Your task to perform on an android device: Clear the shopping cart on bestbuy. Search for "panasonic triple a" on bestbuy, select the first entry, add it to the cart, then select checkout. Image 0: 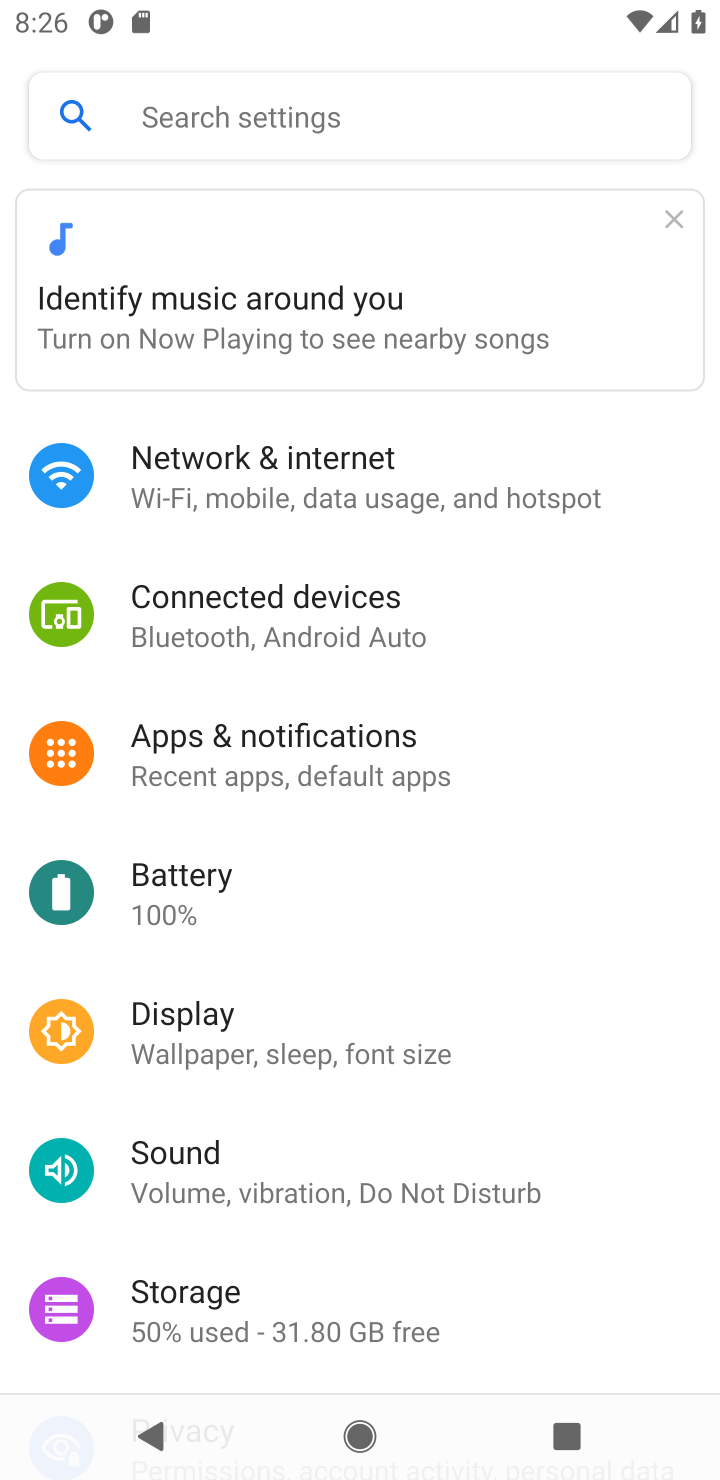
Step 0: press home button
Your task to perform on an android device: Clear the shopping cart on bestbuy. Search for "panasonic triple a" on bestbuy, select the first entry, add it to the cart, then select checkout. Image 1: 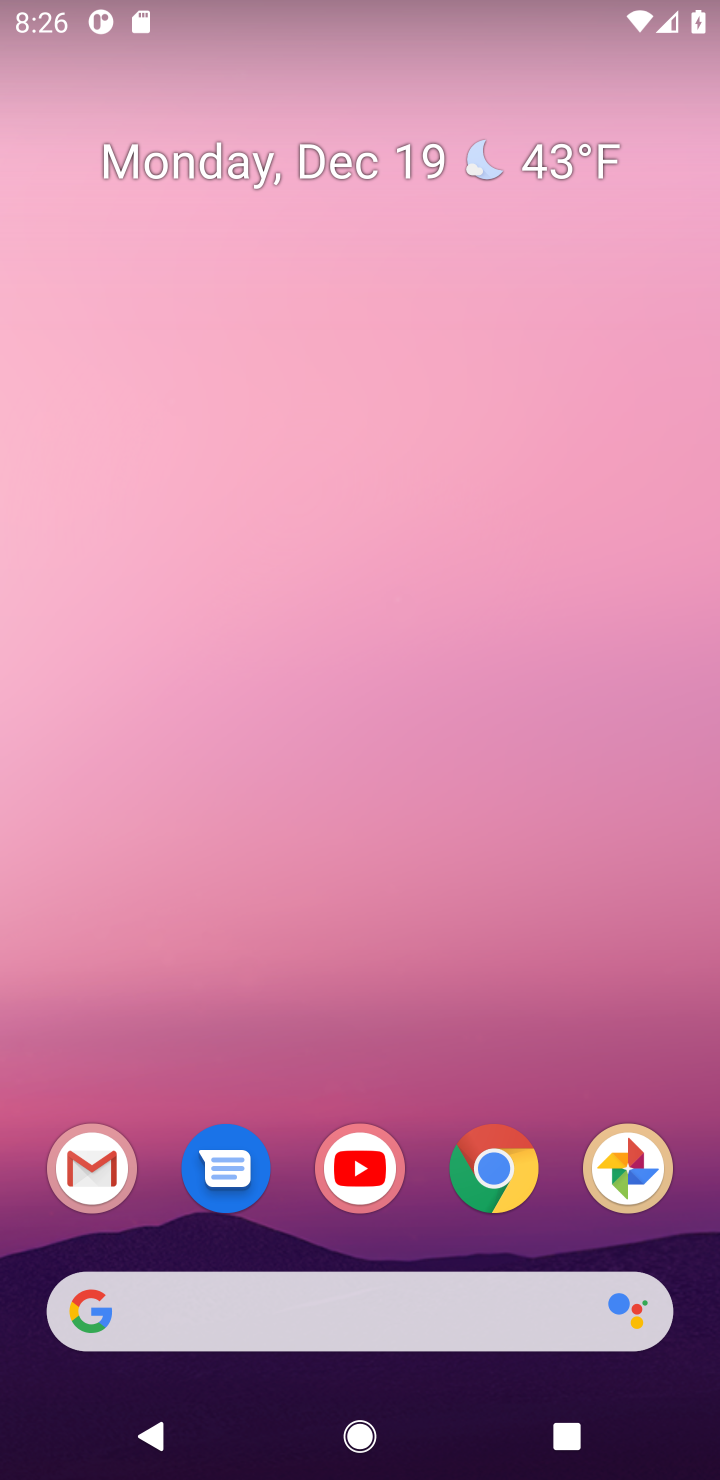
Step 1: click (489, 1188)
Your task to perform on an android device: Clear the shopping cart on bestbuy. Search for "panasonic triple a" on bestbuy, select the first entry, add it to the cart, then select checkout. Image 2: 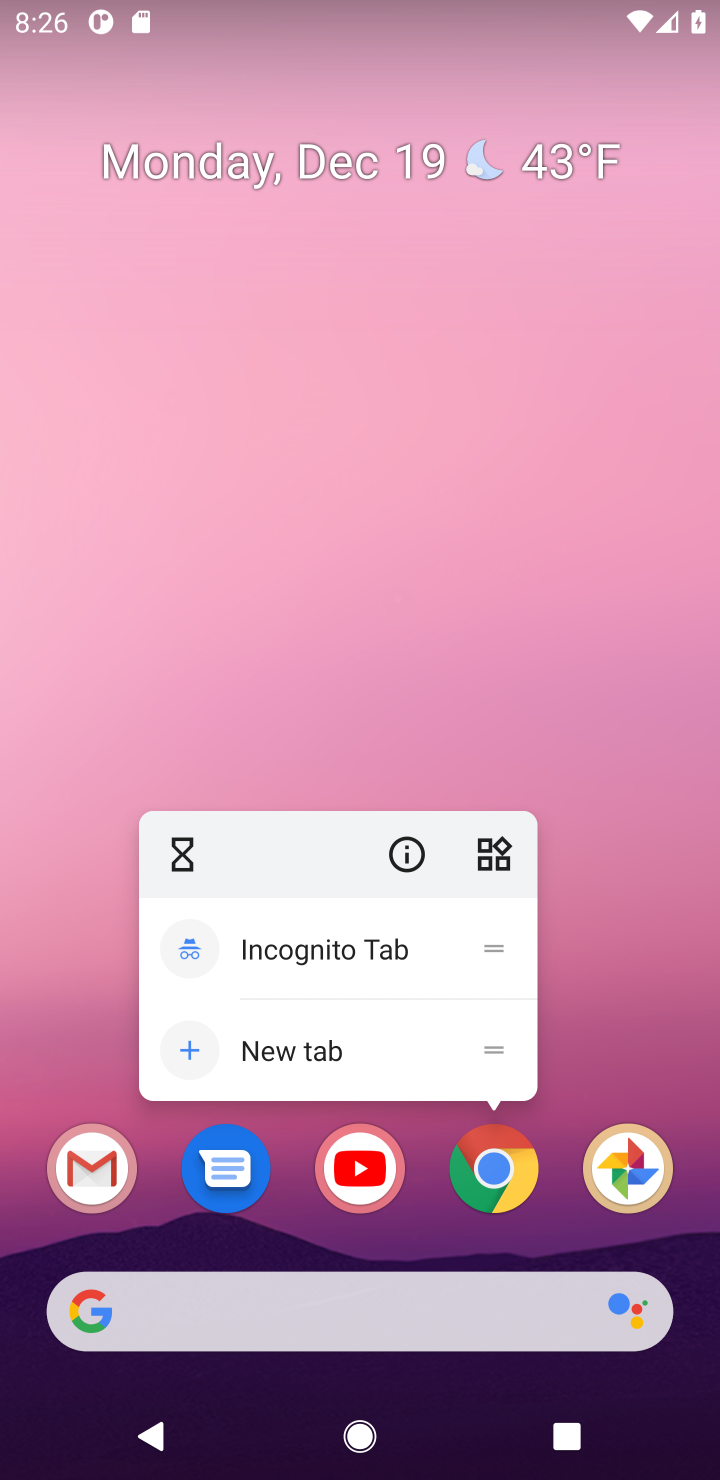
Step 2: click (493, 1186)
Your task to perform on an android device: Clear the shopping cart on bestbuy. Search for "panasonic triple a" on bestbuy, select the first entry, add it to the cart, then select checkout. Image 3: 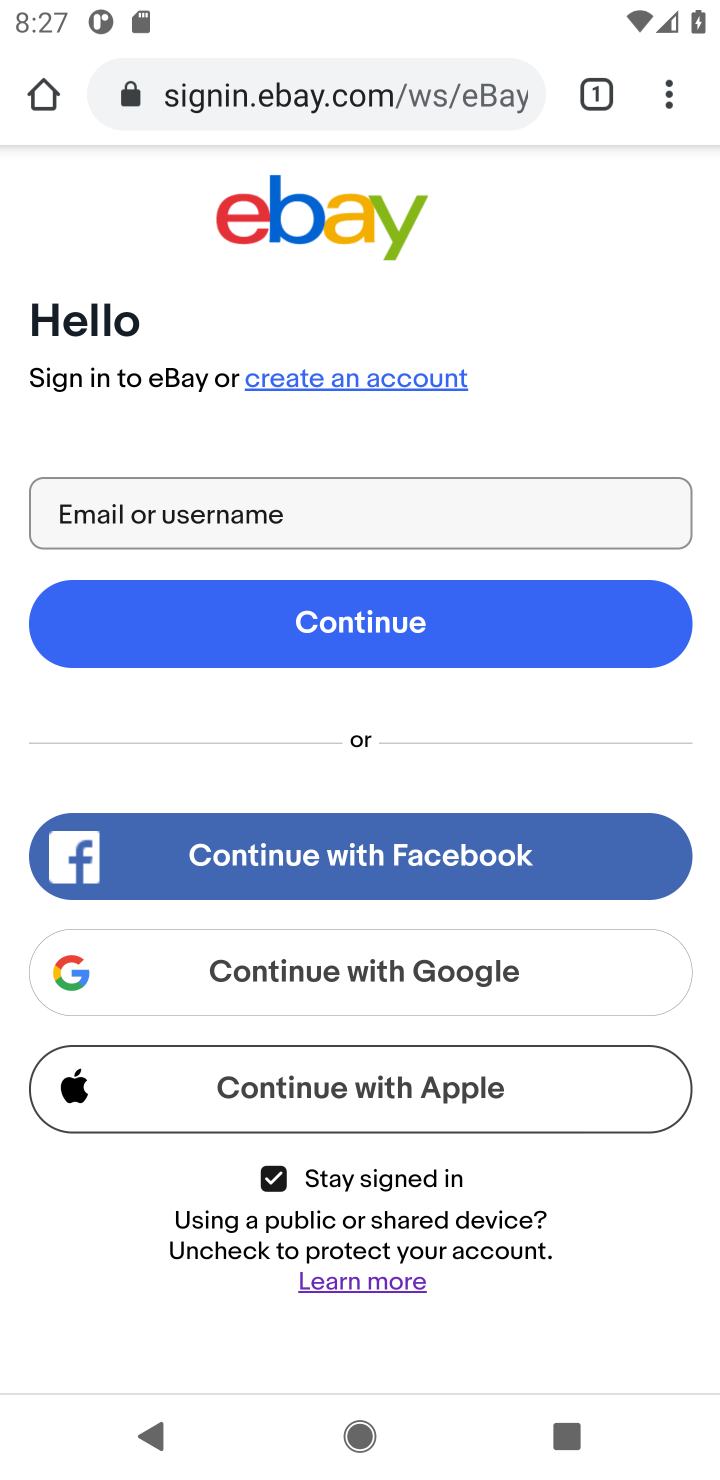
Step 3: click (317, 91)
Your task to perform on an android device: Clear the shopping cart on bestbuy. Search for "panasonic triple a" on bestbuy, select the first entry, add it to the cart, then select checkout. Image 4: 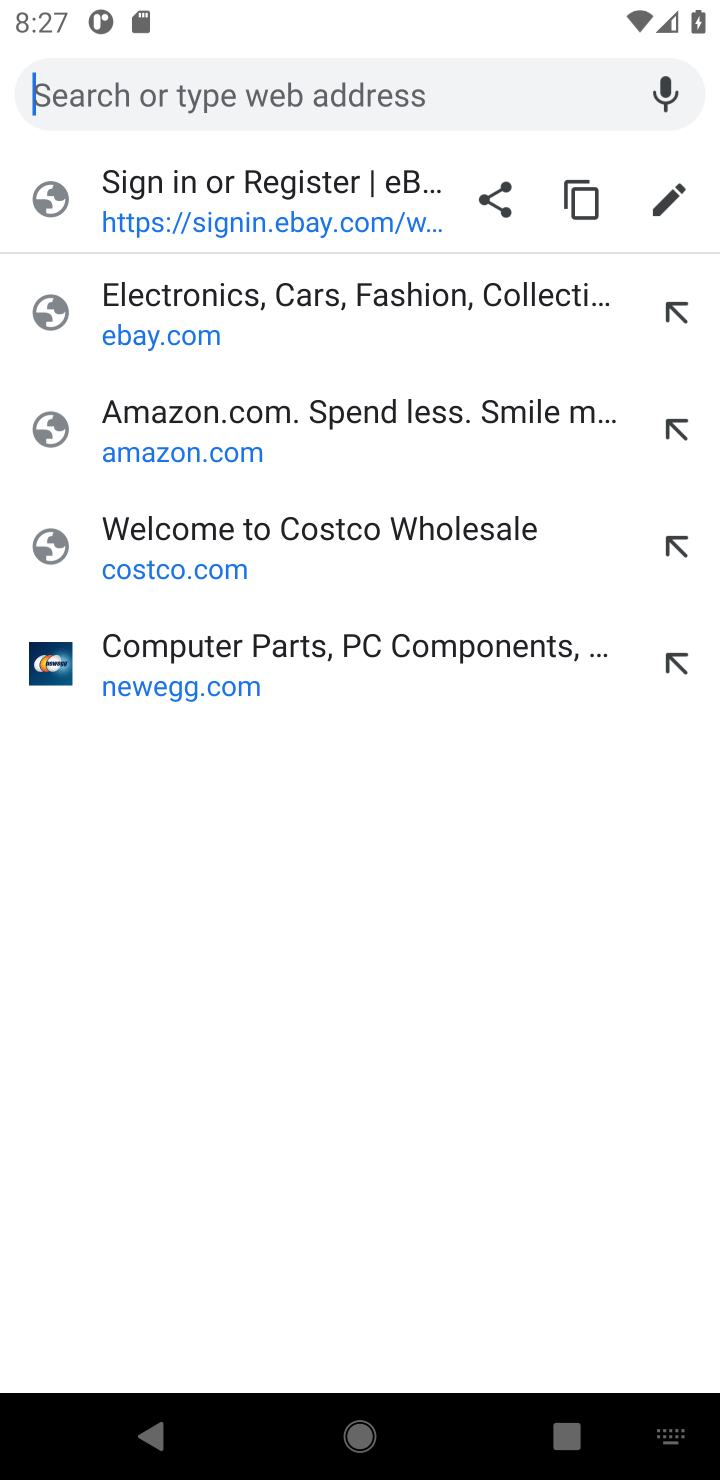
Step 4: type "bestbuy.com"
Your task to perform on an android device: Clear the shopping cart on bestbuy. Search for "panasonic triple a" on bestbuy, select the first entry, add it to the cart, then select checkout. Image 5: 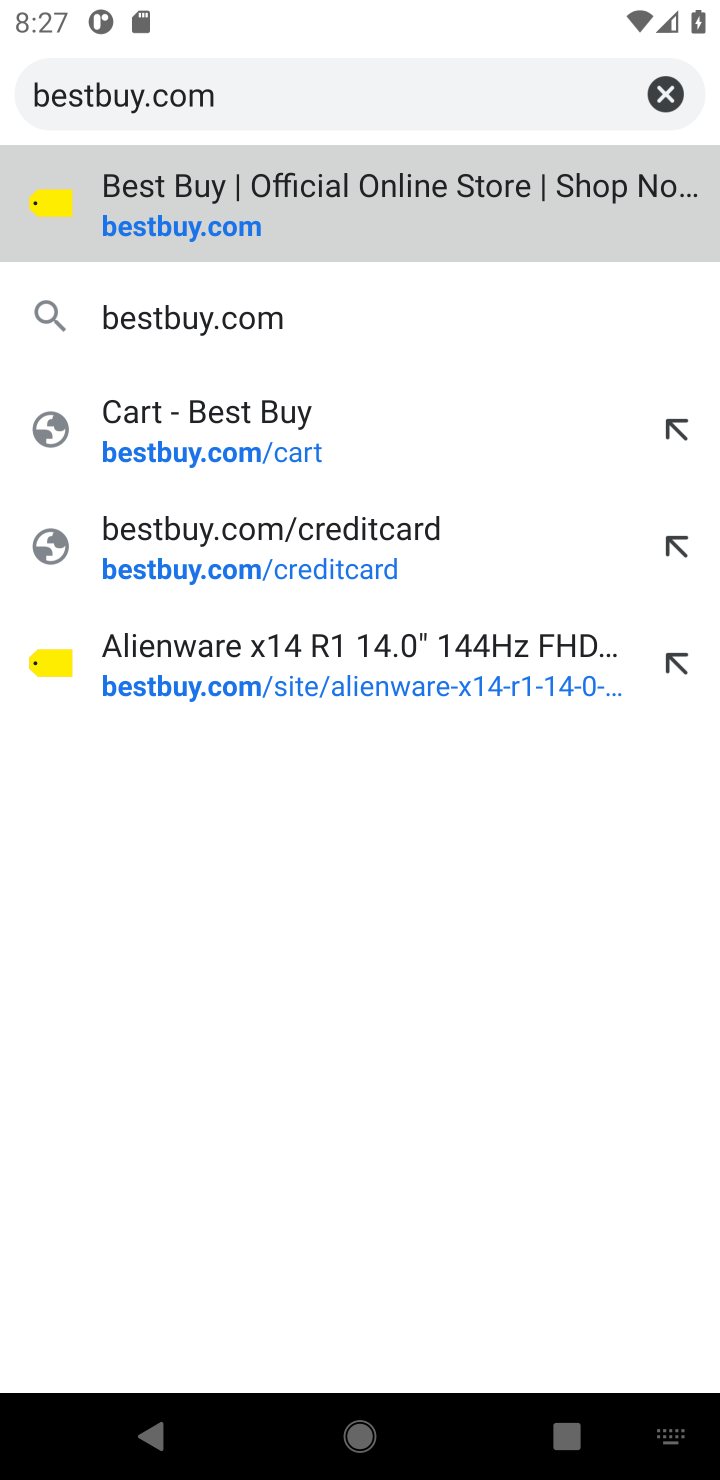
Step 5: click (167, 241)
Your task to perform on an android device: Clear the shopping cart on bestbuy. Search for "panasonic triple a" on bestbuy, select the first entry, add it to the cart, then select checkout. Image 6: 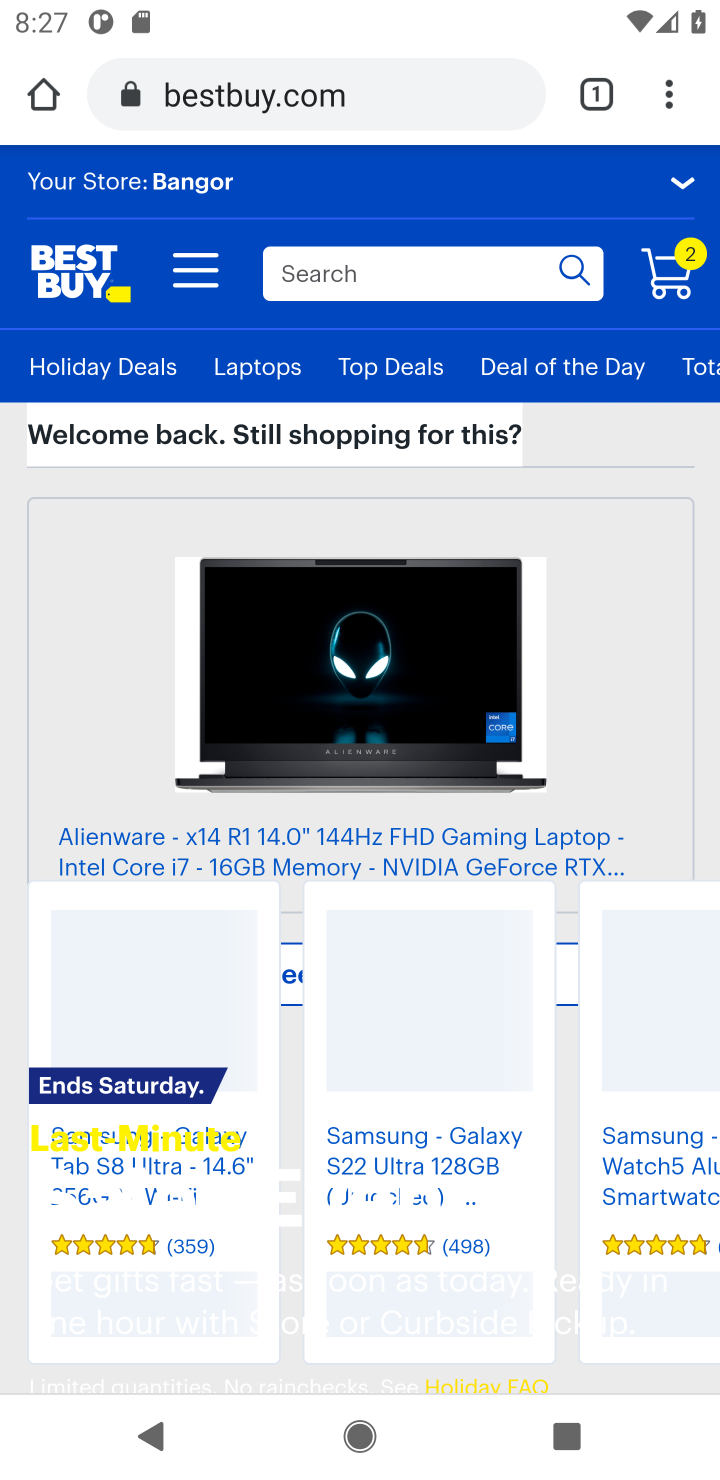
Step 6: click (675, 288)
Your task to perform on an android device: Clear the shopping cart on bestbuy. Search for "panasonic triple a" on bestbuy, select the first entry, add it to the cart, then select checkout. Image 7: 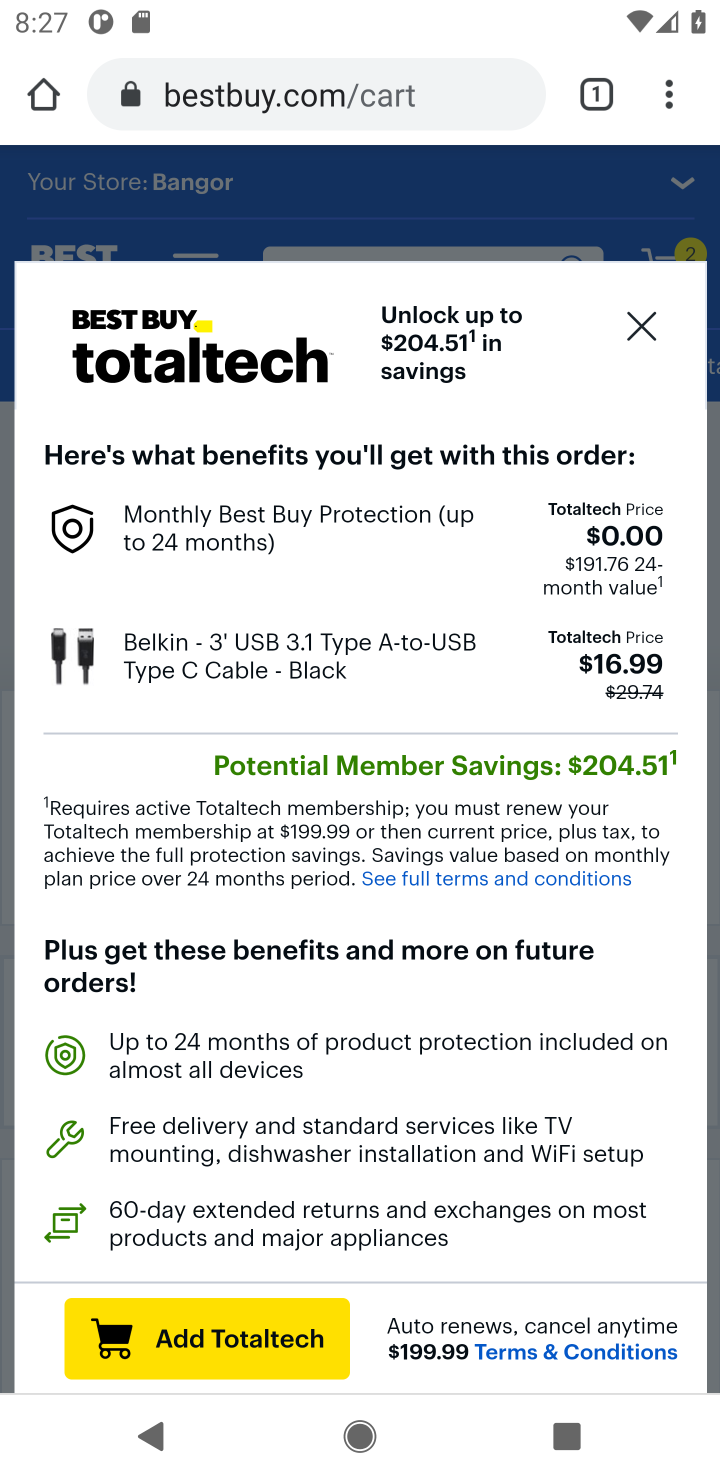
Step 7: click (633, 327)
Your task to perform on an android device: Clear the shopping cart on bestbuy. Search for "panasonic triple a" on bestbuy, select the first entry, add it to the cart, then select checkout. Image 8: 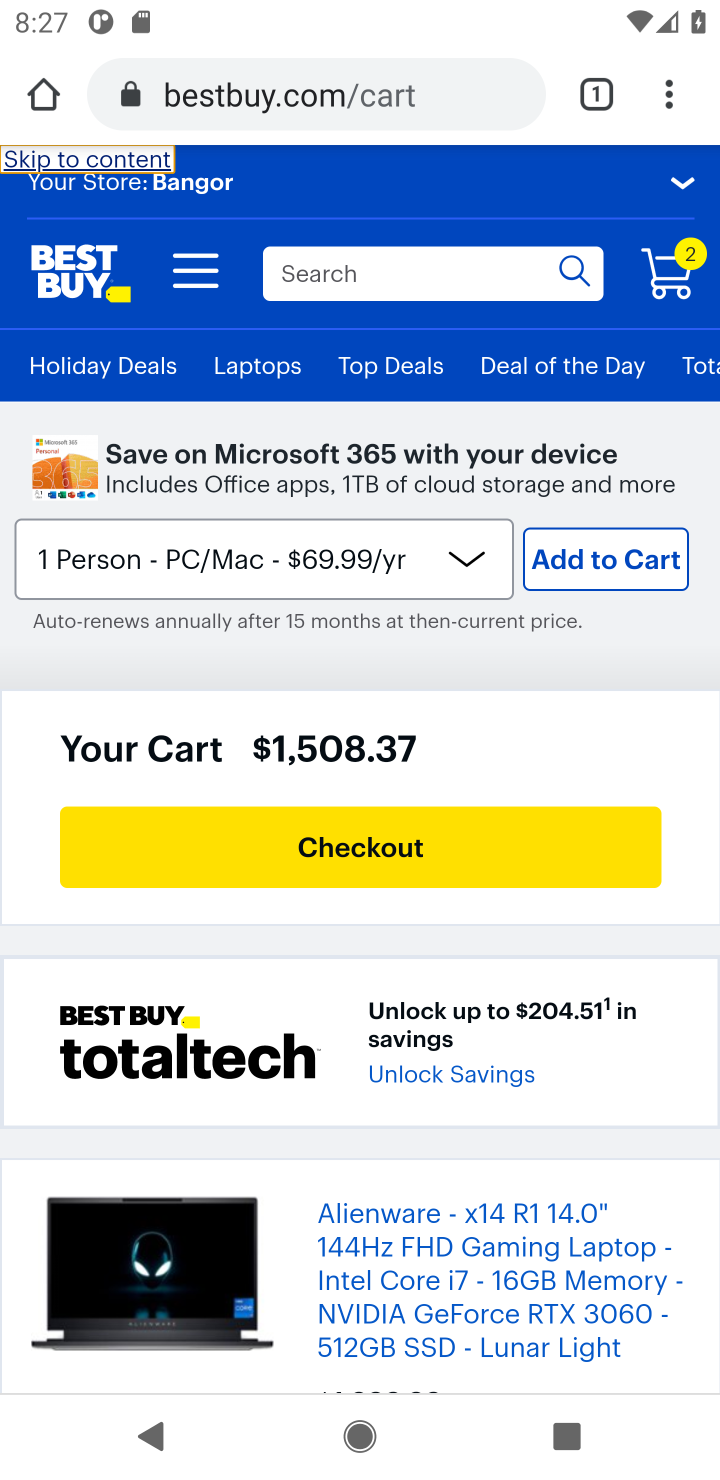
Step 8: drag from (581, 1112) to (490, 449)
Your task to perform on an android device: Clear the shopping cart on bestbuy. Search for "panasonic triple a" on bestbuy, select the first entry, add it to the cart, then select checkout. Image 9: 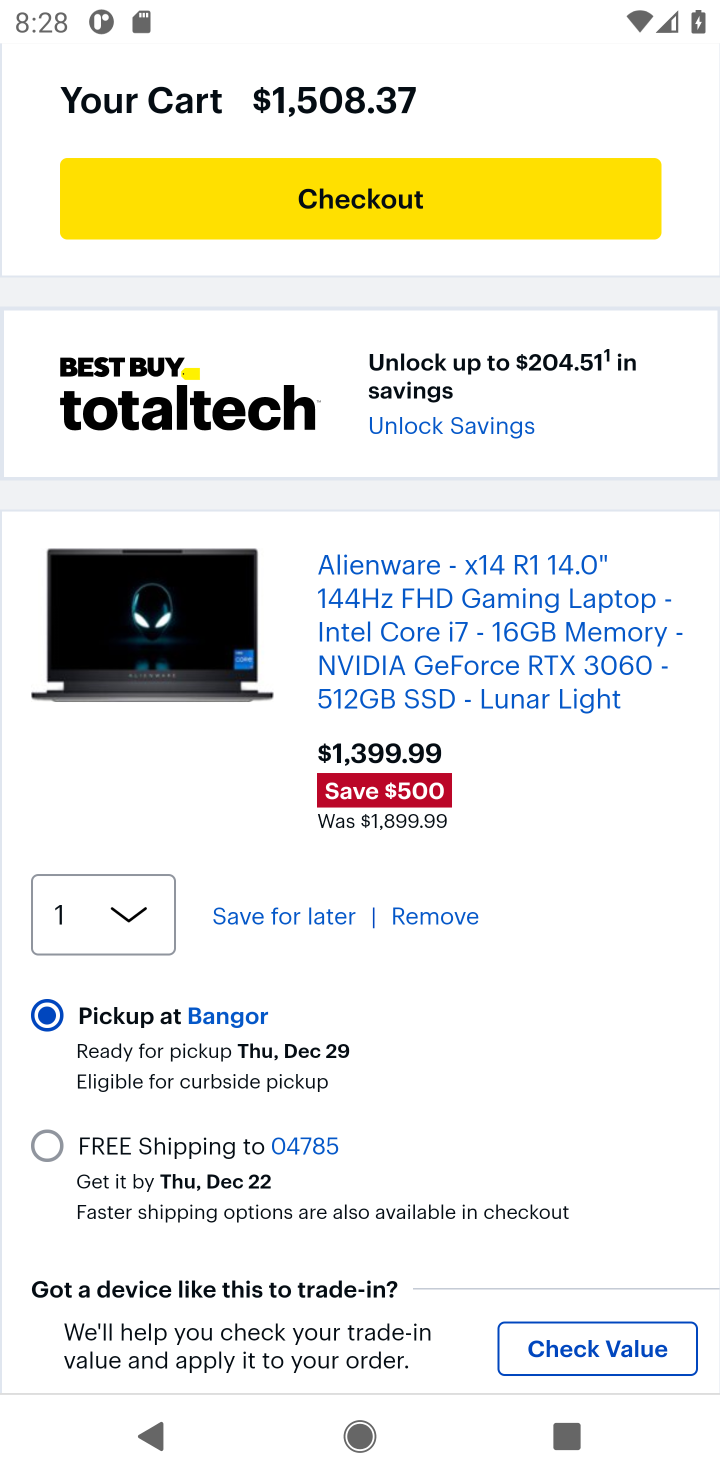
Step 9: click (420, 902)
Your task to perform on an android device: Clear the shopping cart on bestbuy. Search for "panasonic triple a" on bestbuy, select the first entry, add it to the cart, then select checkout. Image 10: 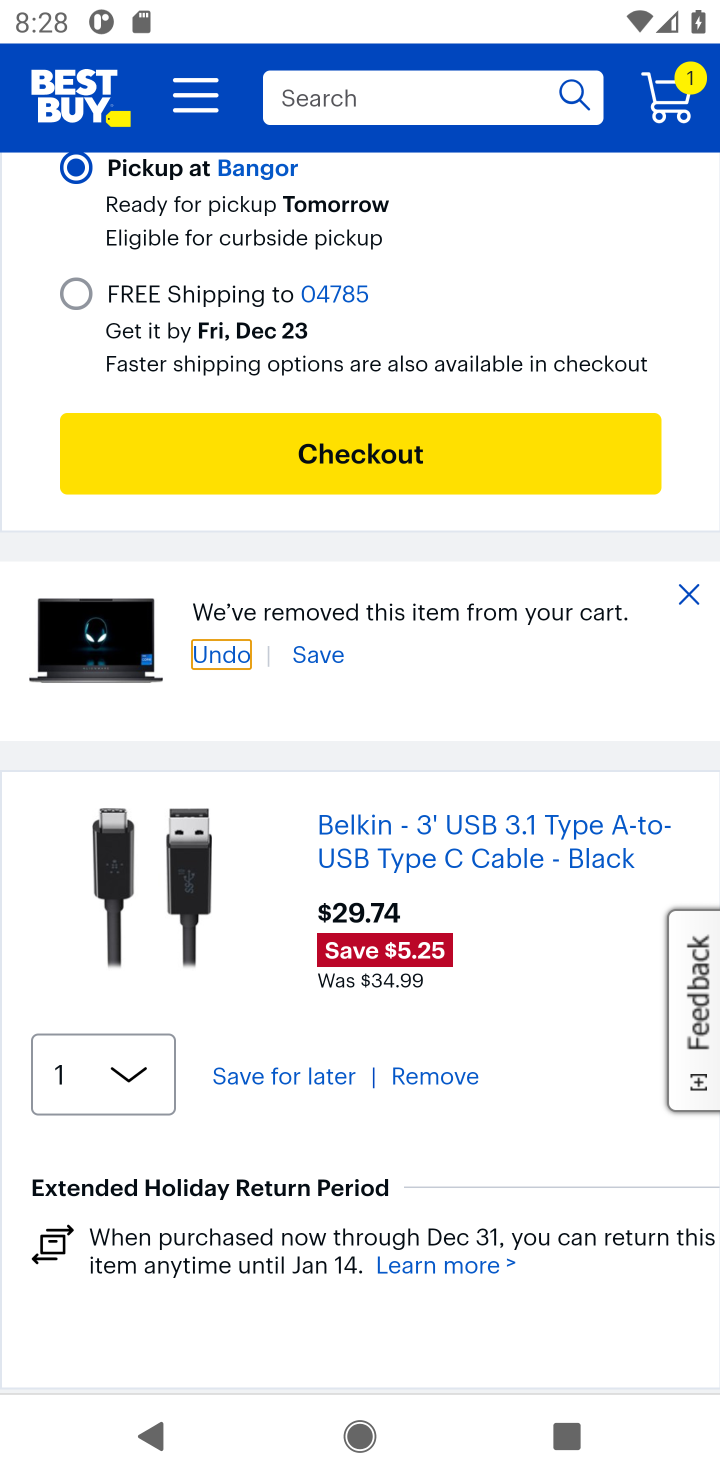
Step 10: click (433, 1069)
Your task to perform on an android device: Clear the shopping cart on bestbuy. Search for "panasonic triple a" on bestbuy, select the first entry, add it to the cart, then select checkout. Image 11: 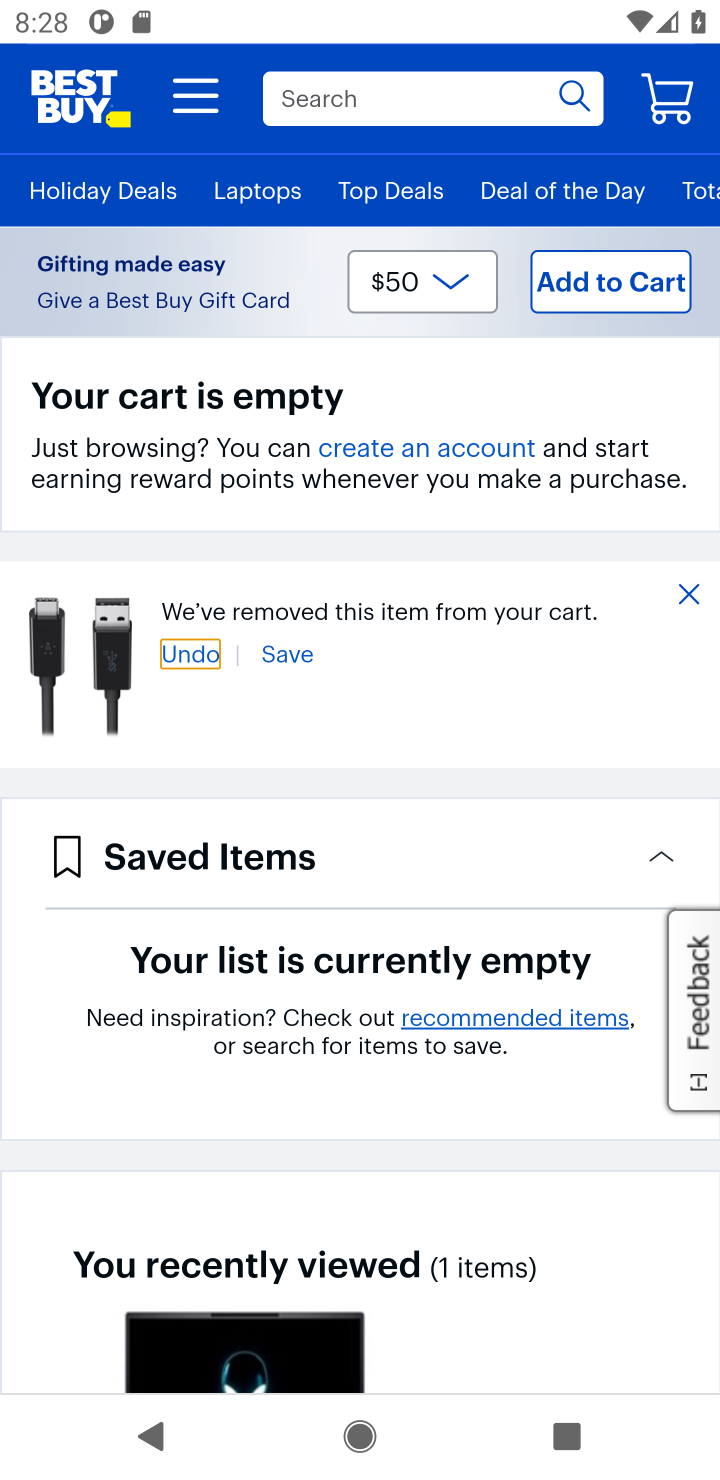
Step 11: click (319, 99)
Your task to perform on an android device: Clear the shopping cart on bestbuy. Search for "panasonic triple a" on bestbuy, select the first entry, add it to the cart, then select checkout. Image 12: 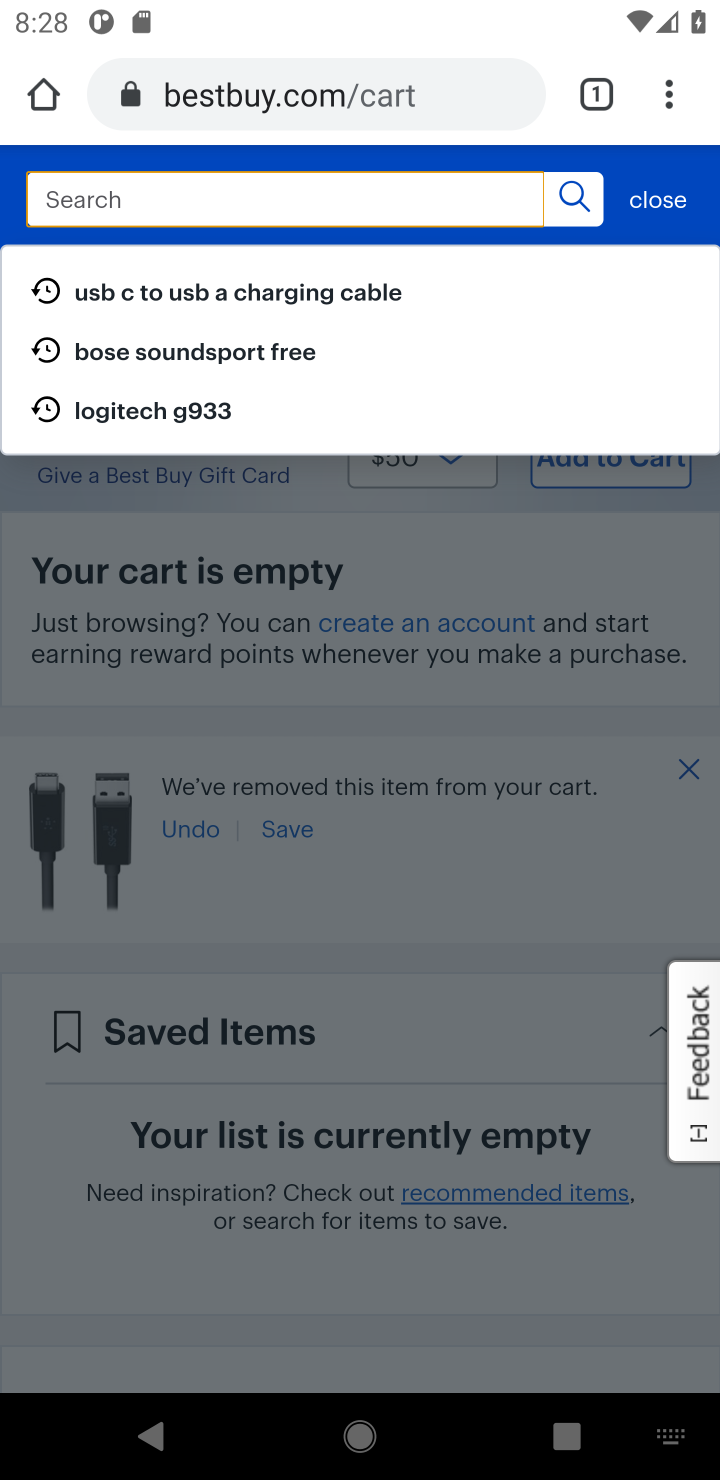
Step 12: type "panasonic triple a"
Your task to perform on an android device: Clear the shopping cart on bestbuy. Search for "panasonic triple a" on bestbuy, select the first entry, add it to the cart, then select checkout. Image 13: 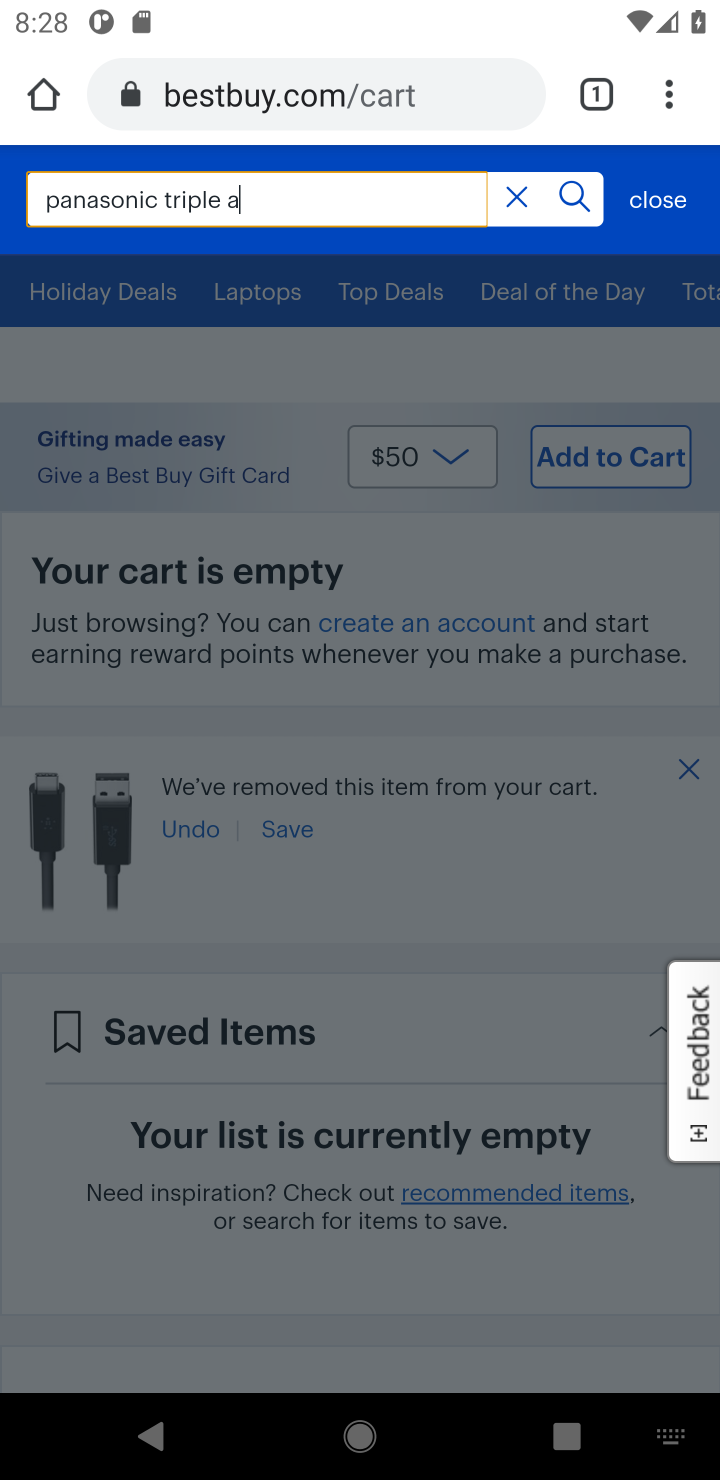
Step 13: click (569, 191)
Your task to perform on an android device: Clear the shopping cart on bestbuy. Search for "panasonic triple a" on bestbuy, select the first entry, add it to the cart, then select checkout. Image 14: 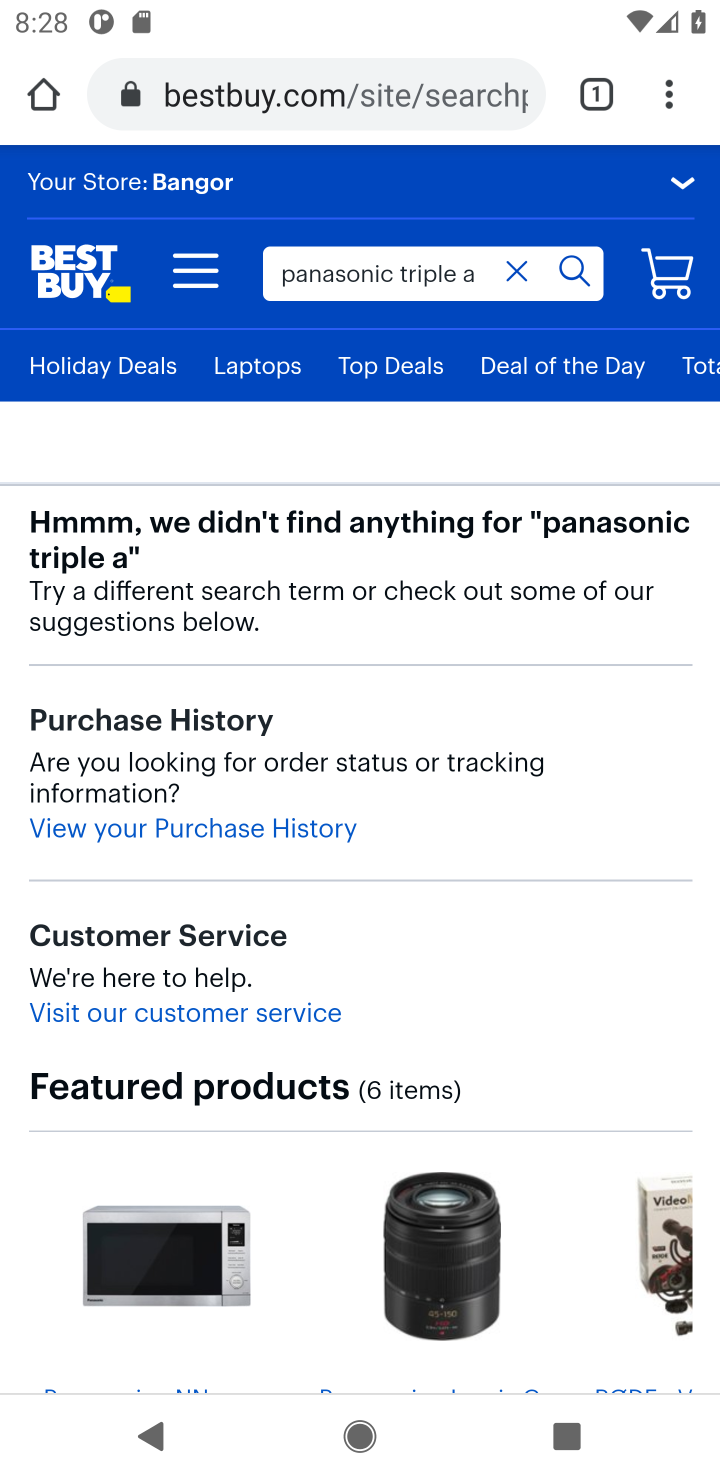
Step 14: task complete